Your task to perform on an android device: Search for Mexican restaurants on Maps Image 0: 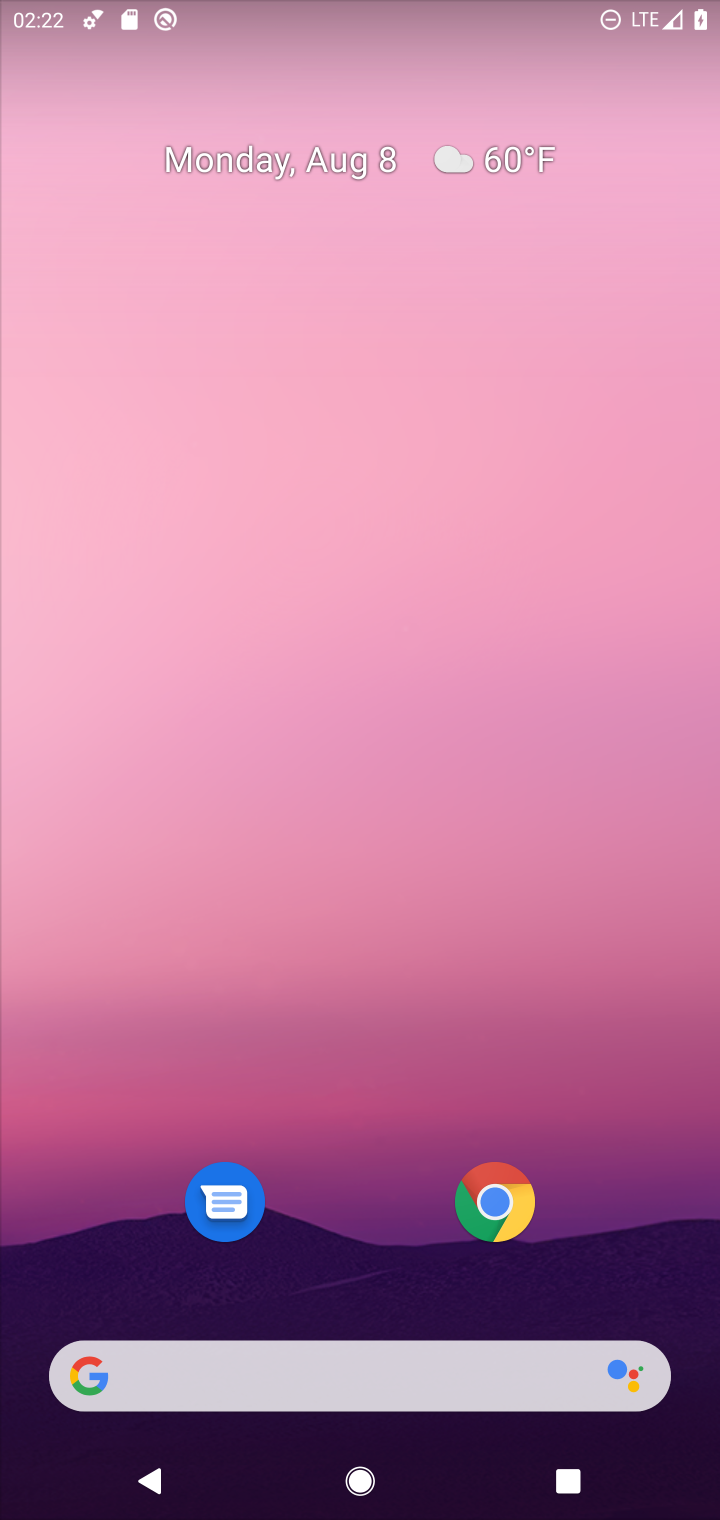
Step 0: press home button
Your task to perform on an android device: Search for Mexican restaurants on Maps Image 1: 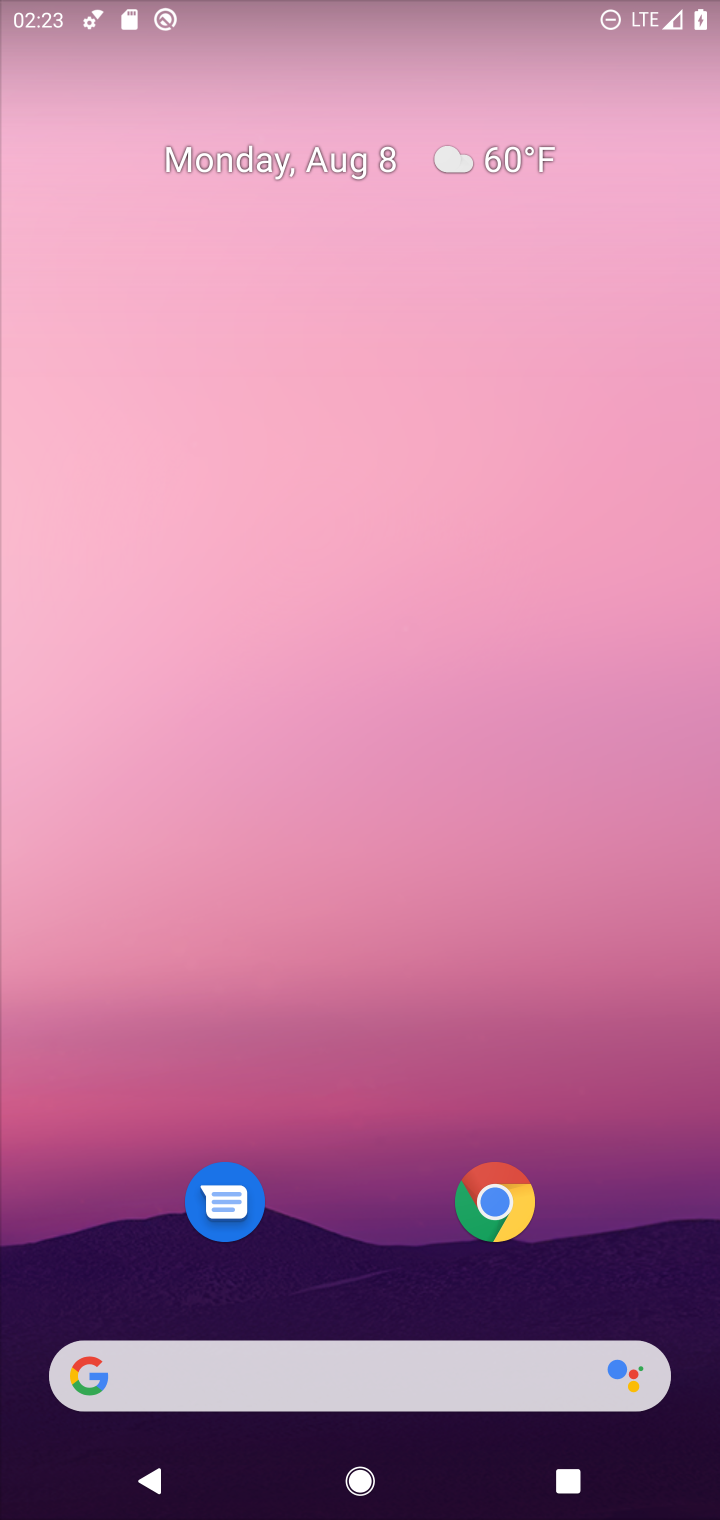
Step 1: drag from (613, 1190) to (579, 189)
Your task to perform on an android device: Search for Mexican restaurants on Maps Image 2: 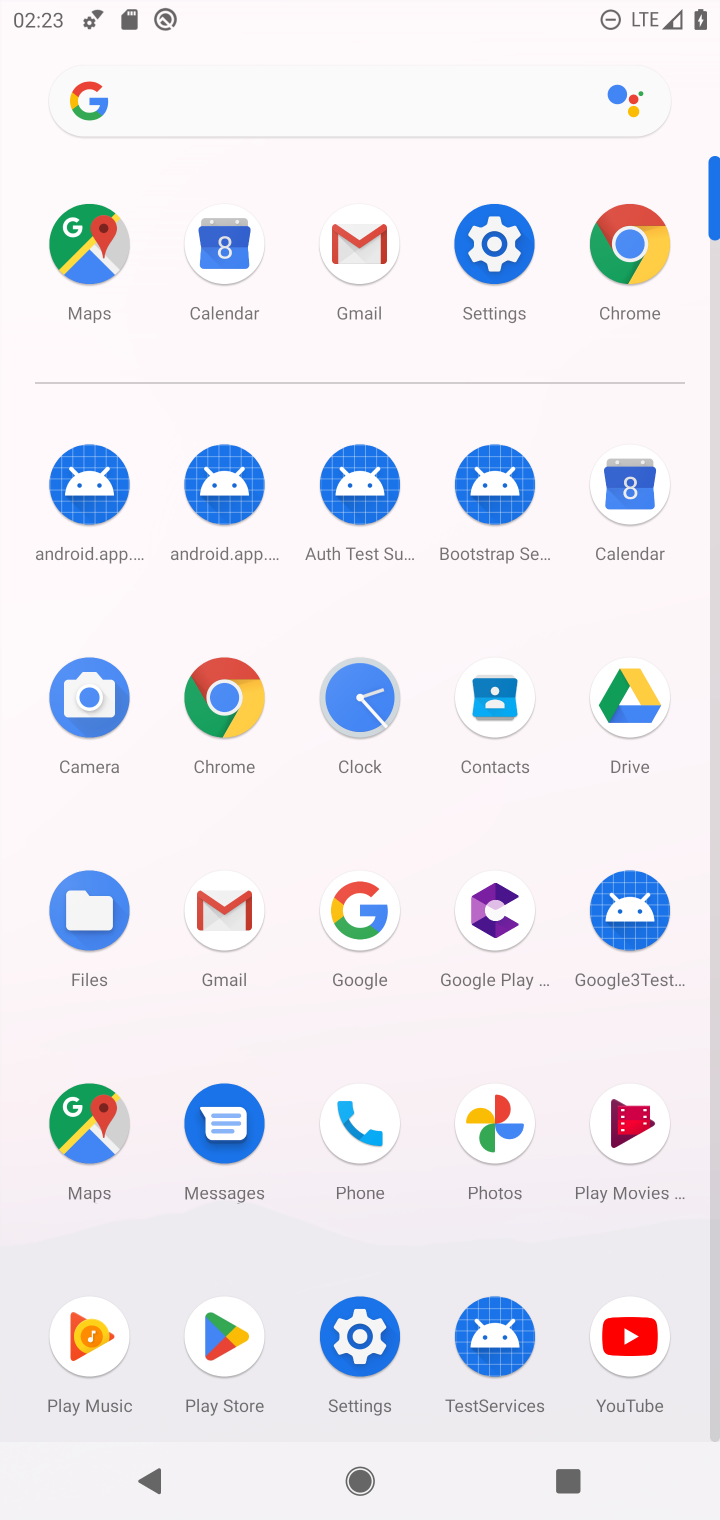
Step 2: click (69, 1110)
Your task to perform on an android device: Search for Mexican restaurants on Maps Image 3: 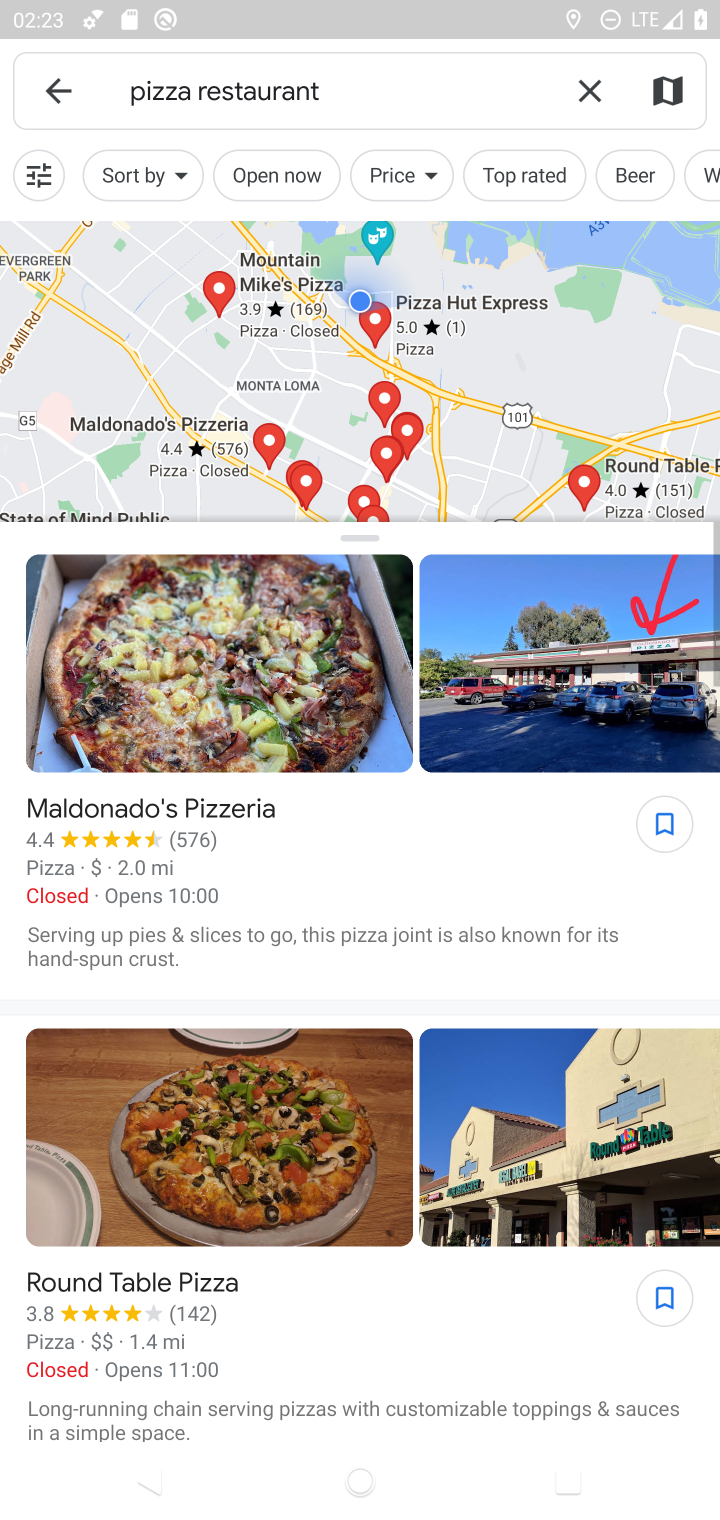
Step 3: click (588, 88)
Your task to perform on an android device: Search for Mexican restaurants on Maps Image 4: 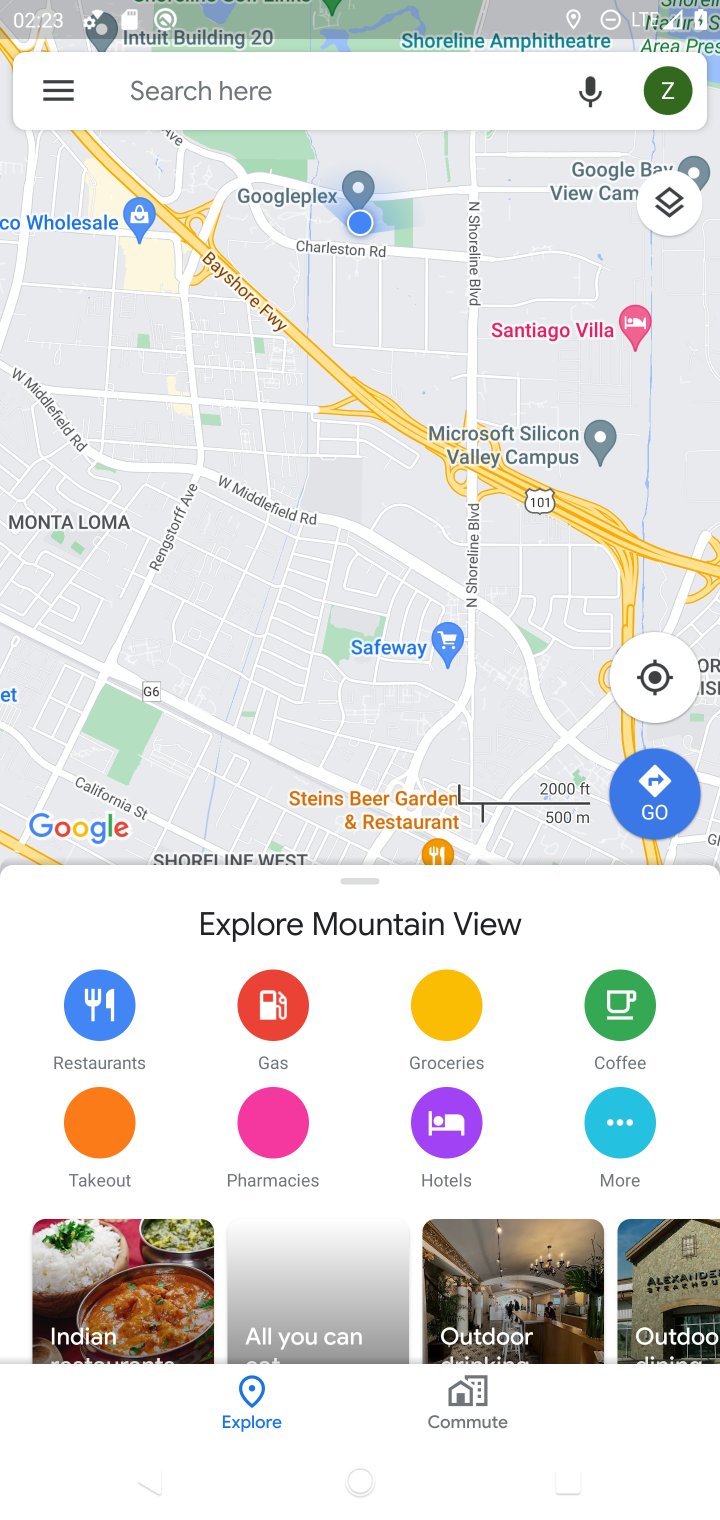
Step 4: click (394, 76)
Your task to perform on an android device: Search for Mexican restaurants on Maps Image 5: 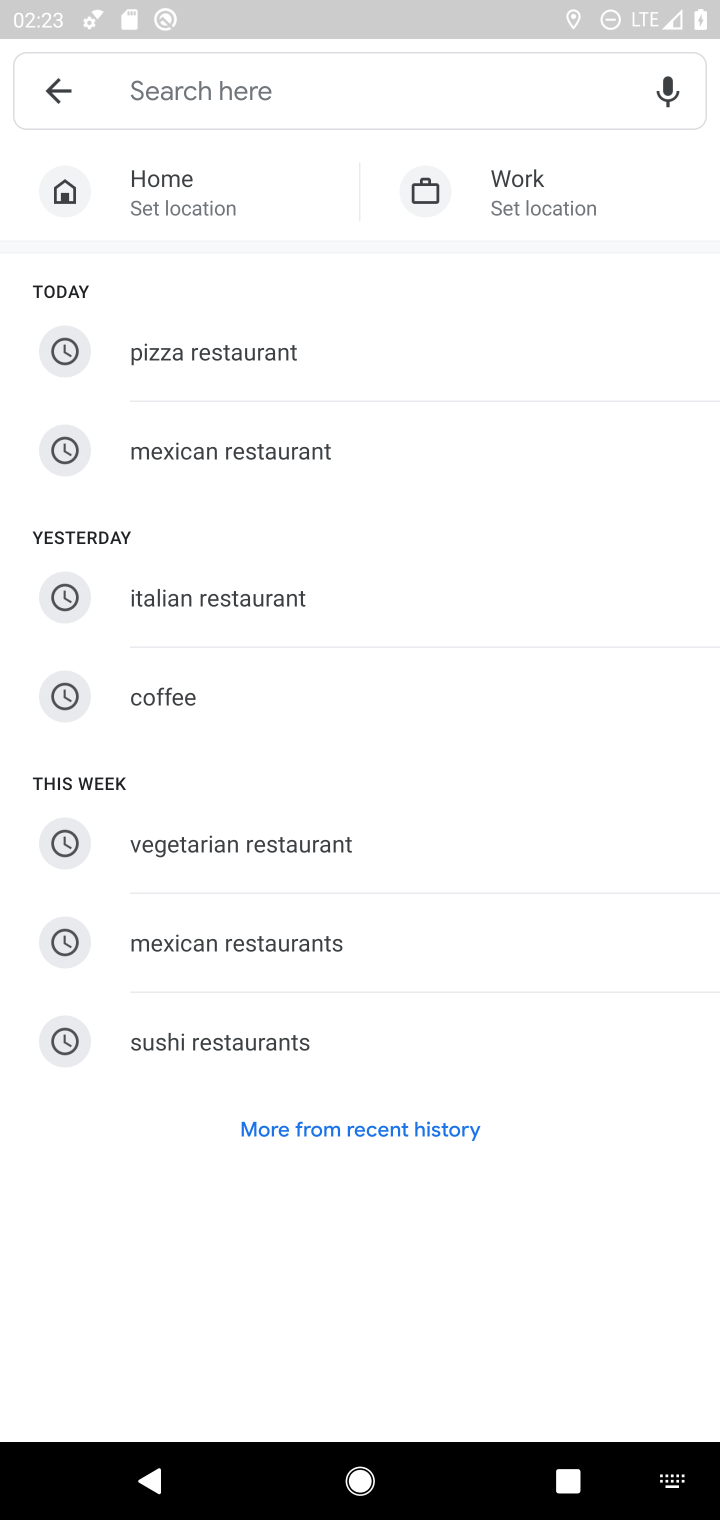
Step 5: type "mixican restaurants"
Your task to perform on an android device: Search for Mexican restaurants on Maps Image 6: 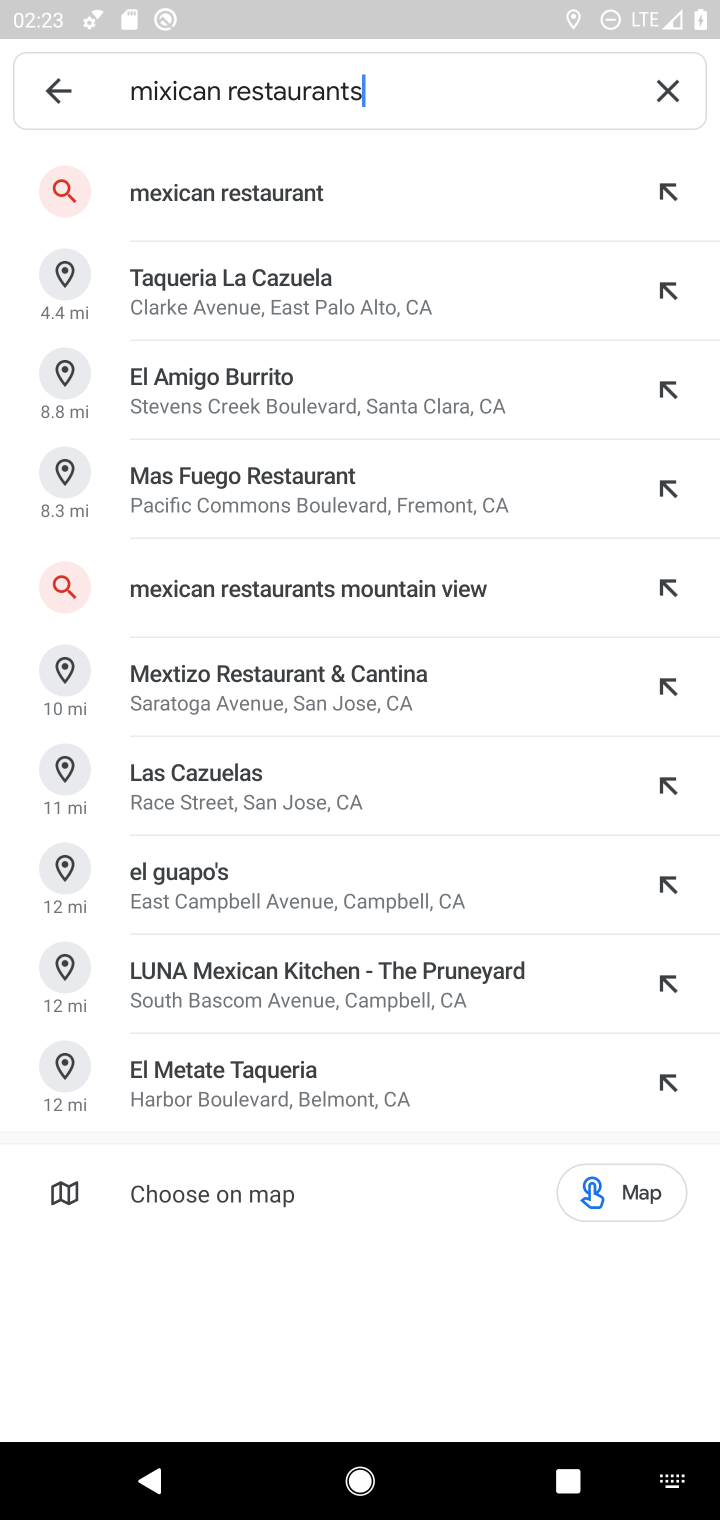
Step 6: click (349, 203)
Your task to perform on an android device: Search for Mexican restaurants on Maps Image 7: 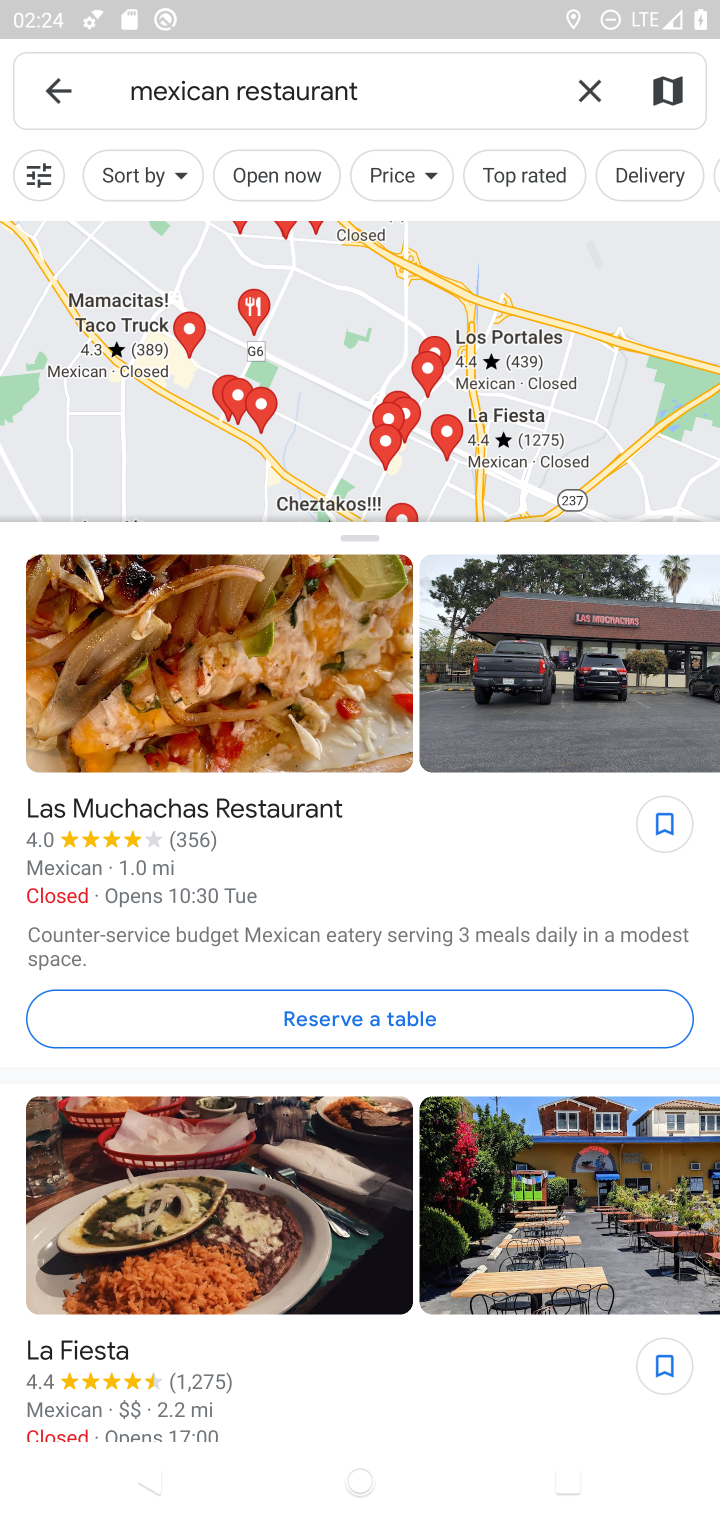
Step 7: task complete